Your task to perform on an android device: Open the stopwatch Image 0: 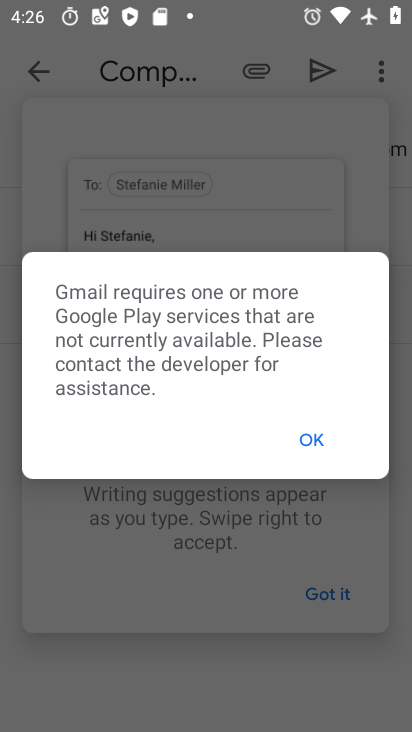
Step 0: press home button
Your task to perform on an android device: Open the stopwatch Image 1: 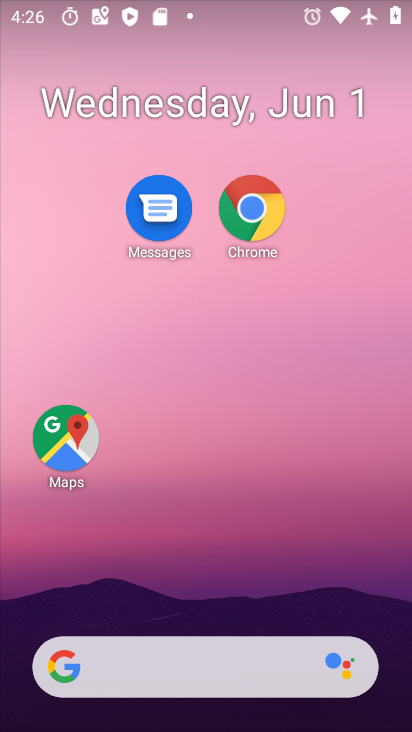
Step 1: drag from (172, 602) to (227, 241)
Your task to perform on an android device: Open the stopwatch Image 2: 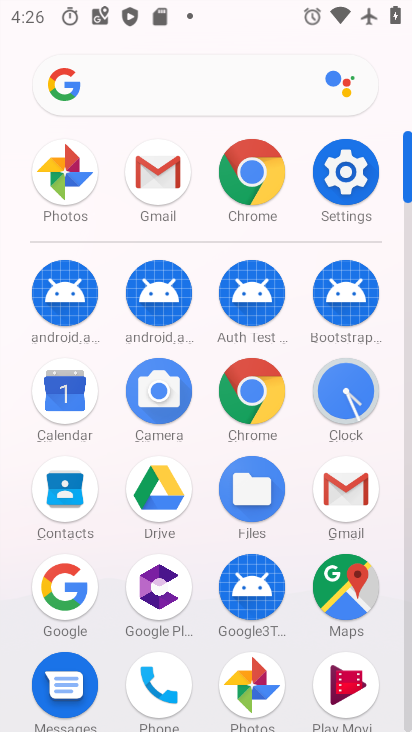
Step 2: click (330, 414)
Your task to perform on an android device: Open the stopwatch Image 3: 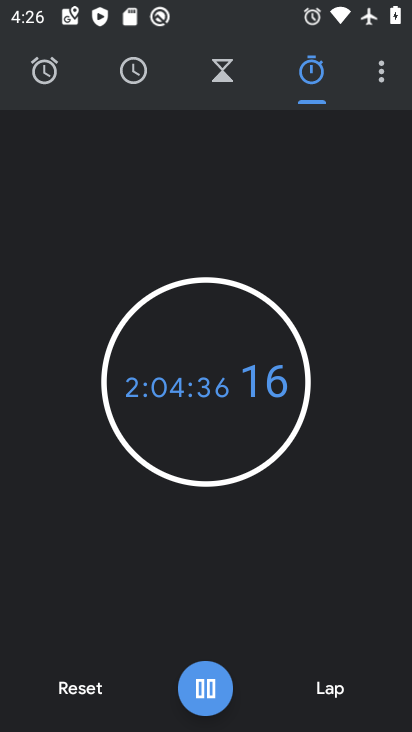
Step 3: task complete